Your task to perform on an android device: Open calendar and show me the fourth week of next month Image 0: 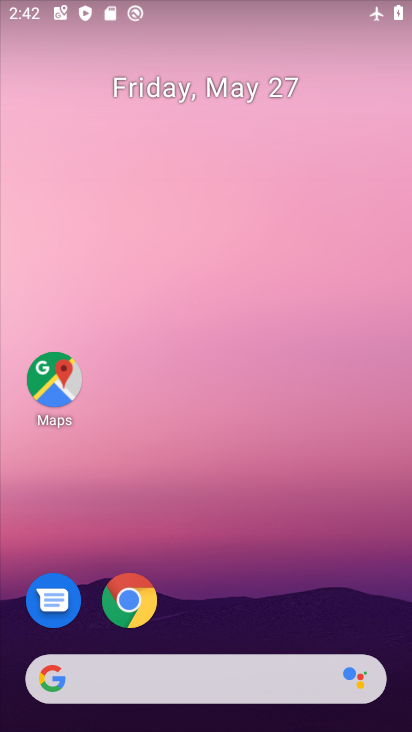
Step 0: drag from (275, 519) to (232, 13)
Your task to perform on an android device: Open calendar and show me the fourth week of next month Image 1: 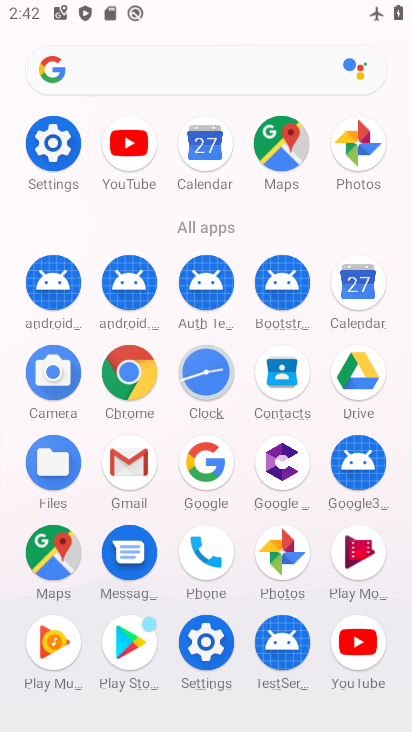
Step 1: click (361, 269)
Your task to perform on an android device: Open calendar and show me the fourth week of next month Image 2: 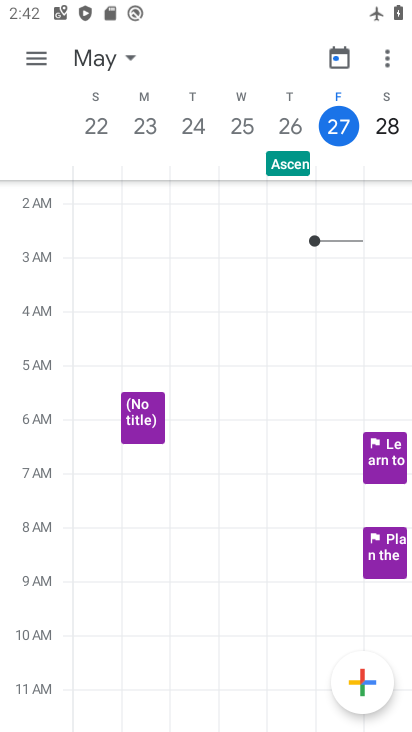
Step 2: click (44, 51)
Your task to perform on an android device: Open calendar and show me the fourth week of next month Image 3: 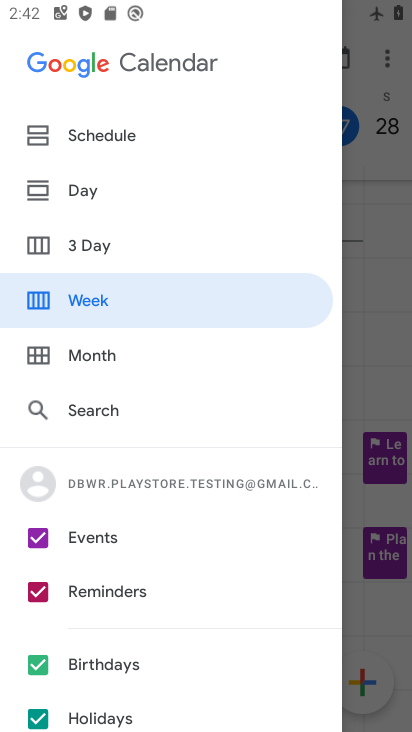
Step 3: click (397, 309)
Your task to perform on an android device: Open calendar and show me the fourth week of next month Image 4: 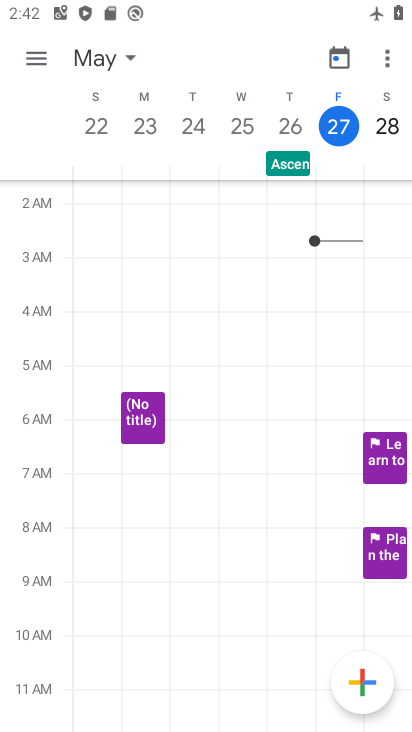
Step 4: click (130, 46)
Your task to perform on an android device: Open calendar and show me the fourth week of next month Image 5: 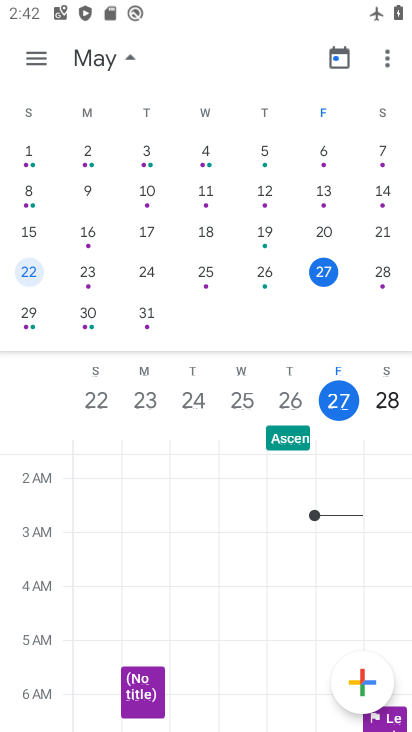
Step 5: drag from (352, 320) to (11, 281)
Your task to perform on an android device: Open calendar and show me the fourth week of next month Image 6: 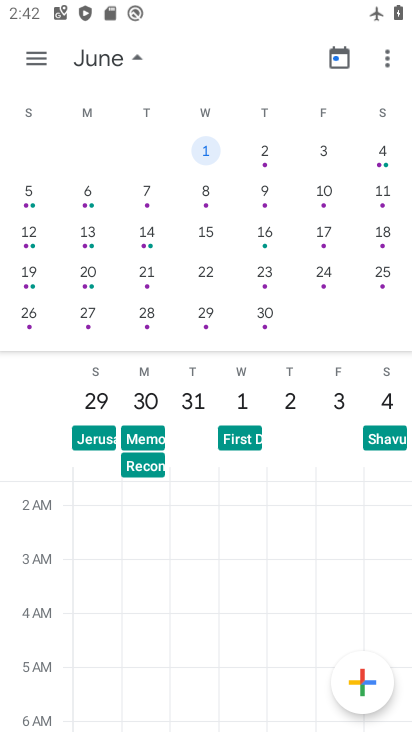
Step 6: click (86, 315)
Your task to perform on an android device: Open calendar and show me the fourth week of next month Image 7: 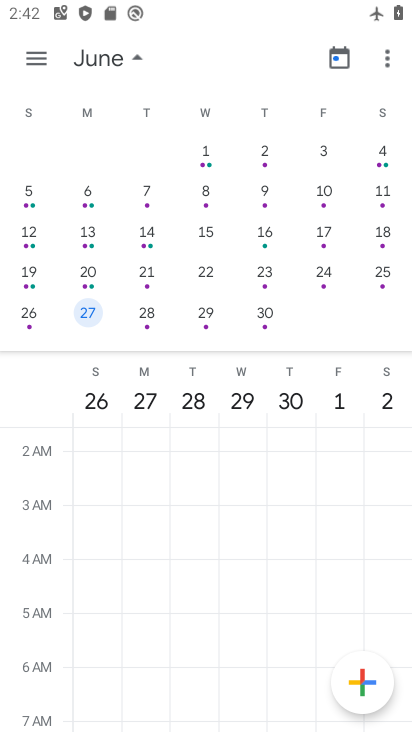
Step 7: task complete